Your task to perform on an android device: Open Chrome and go to settings Image 0: 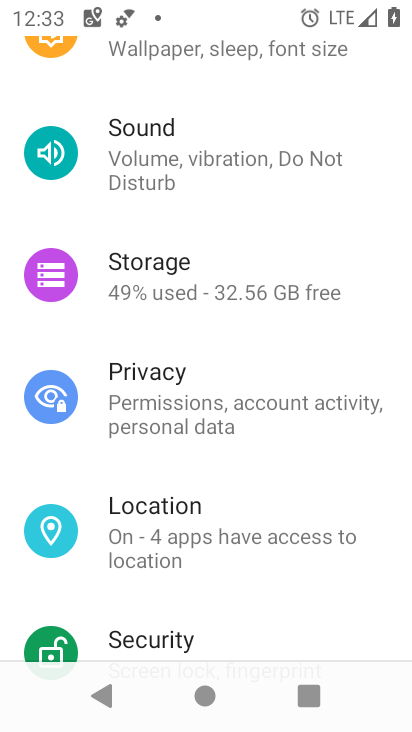
Step 0: press home button
Your task to perform on an android device: Open Chrome and go to settings Image 1: 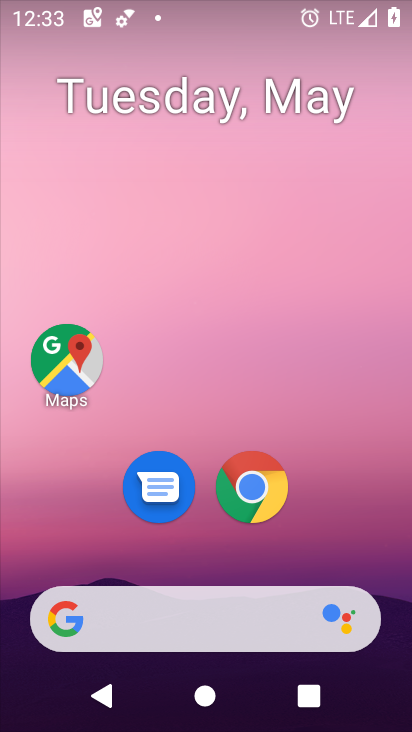
Step 1: click (239, 481)
Your task to perform on an android device: Open Chrome and go to settings Image 2: 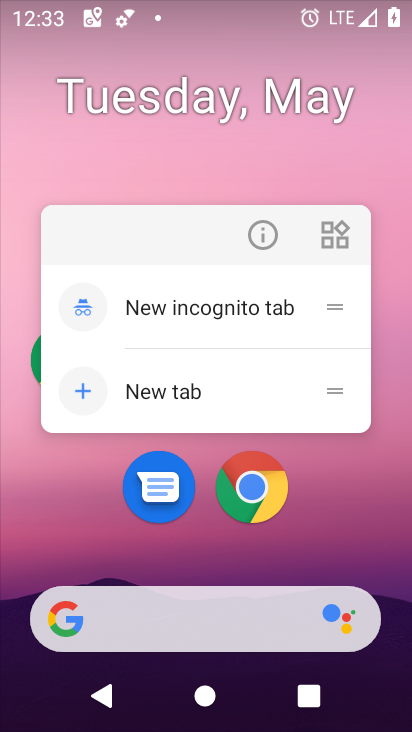
Step 2: click (239, 481)
Your task to perform on an android device: Open Chrome and go to settings Image 3: 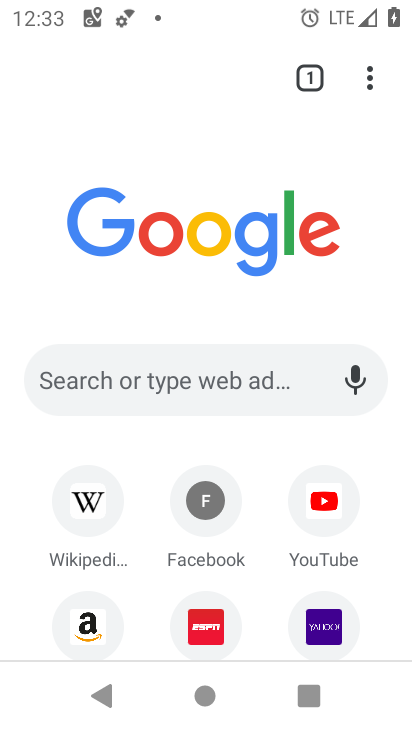
Step 3: click (371, 85)
Your task to perform on an android device: Open Chrome and go to settings Image 4: 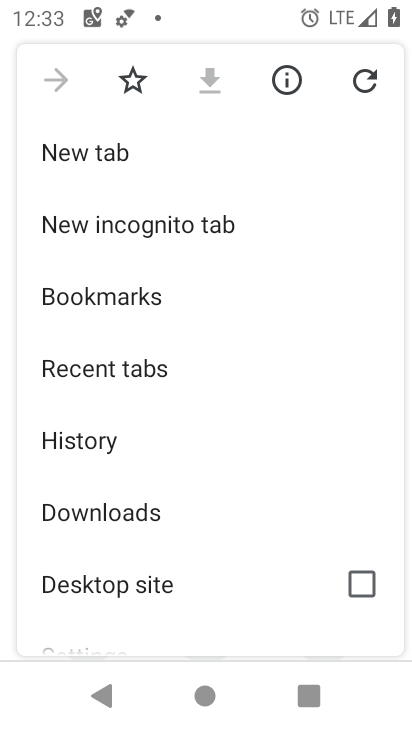
Step 4: drag from (2, 516) to (175, 118)
Your task to perform on an android device: Open Chrome and go to settings Image 5: 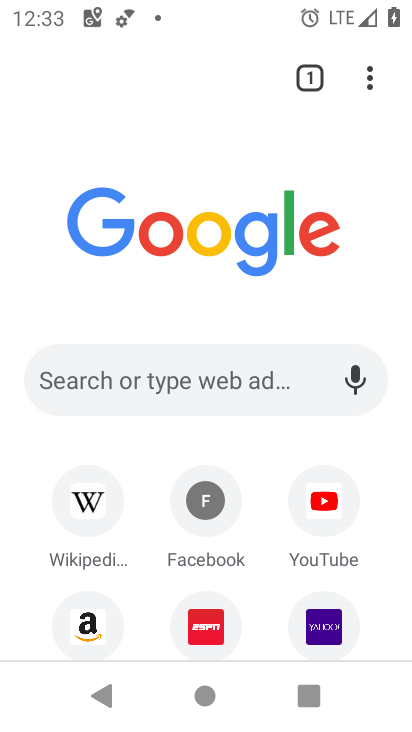
Step 5: click (368, 78)
Your task to perform on an android device: Open Chrome and go to settings Image 6: 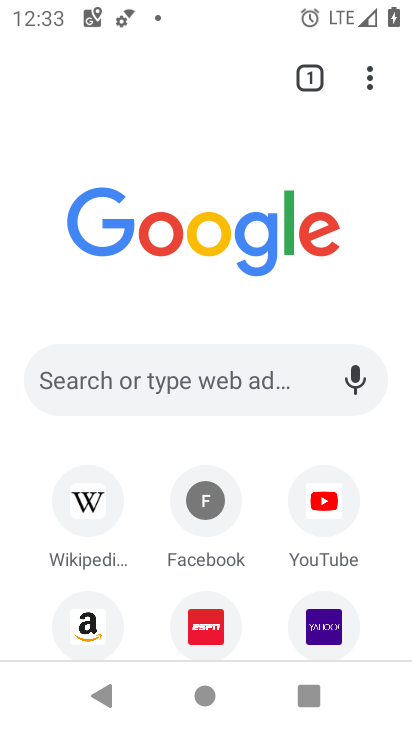
Step 6: click (374, 75)
Your task to perform on an android device: Open Chrome and go to settings Image 7: 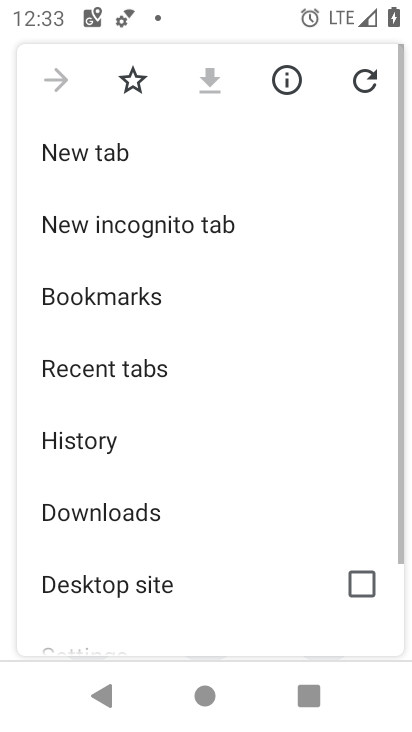
Step 7: drag from (57, 553) to (232, 113)
Your task to perform on an android device: Open Chrome and go to settings Image 8: 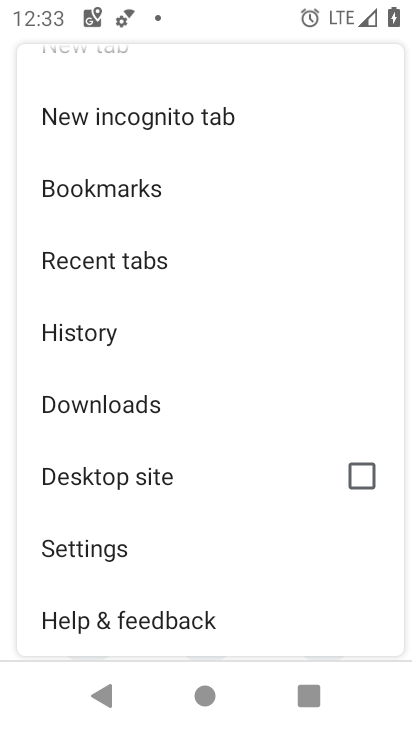
Step 8: click (60, 552)
Your task to perform on an android device: Open Chrome and go to settings Image 9: 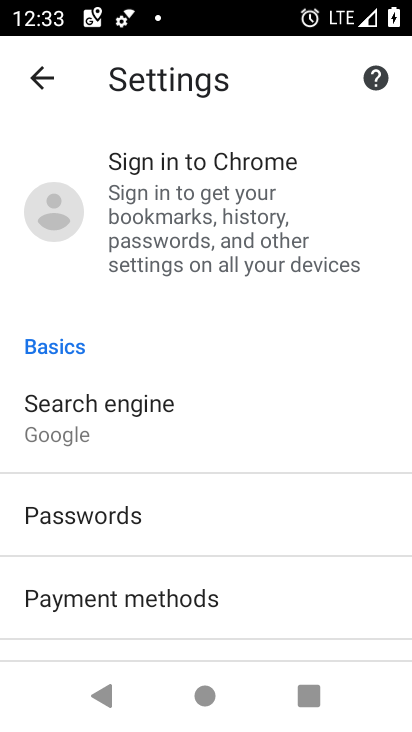
Step 9: task complete